Your task to perform on an android device: toggle location history Image 0: 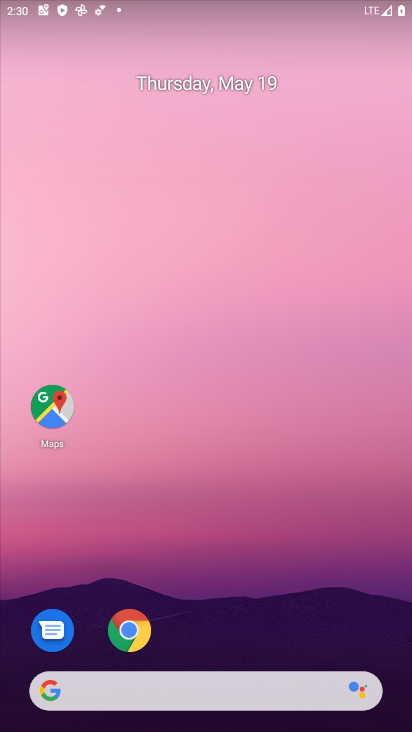
Step 0: click (362, 623)
Your task to perform on an android device: toggle location history Image 1: 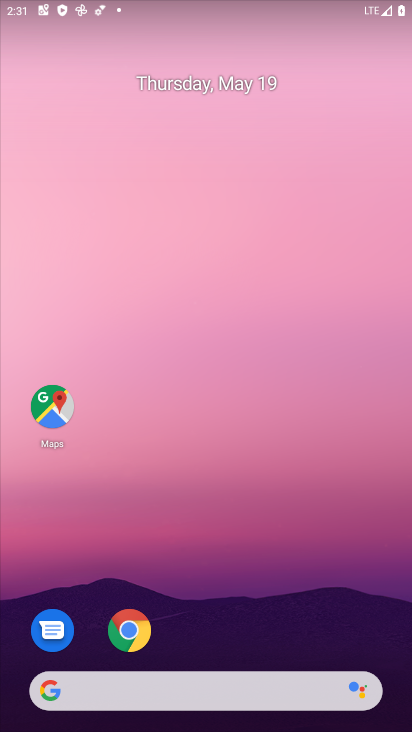
Step 1: click (48, 403)
Your task to perform on an android device: toggle location history Image 2: 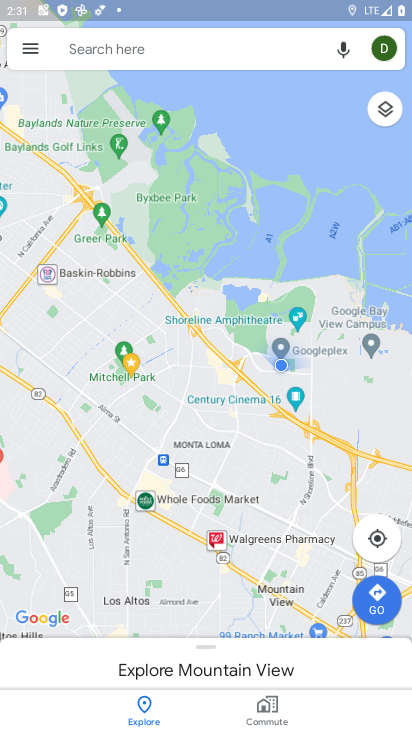
Step 2: click (32, 41)
Your task to perform on an android device: toggle location history Image 3: 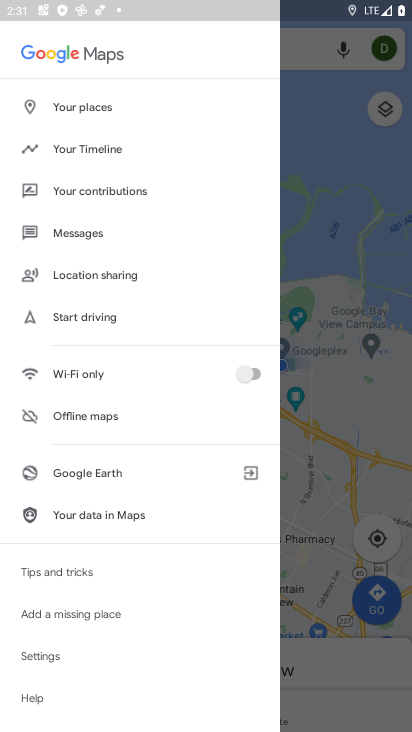
Step 3: drag from (146, 648) to (163, 304)
Your task to perform on an android device: toggle location history Image 4: 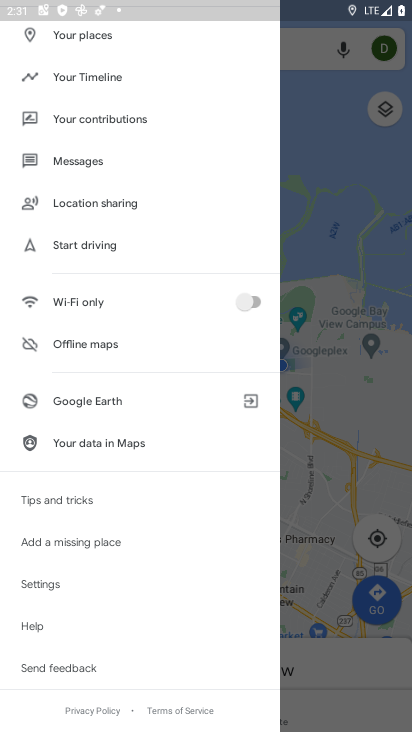
Step 4: click (40, 580)
Your task to perform on an android device: toggle location history Image 5: 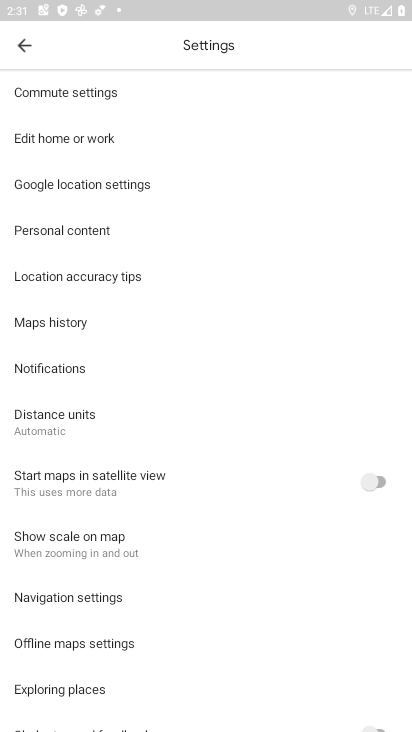
Step 5: click (66, 224)
Your task to perform on an android device: toggle location history Image 6: 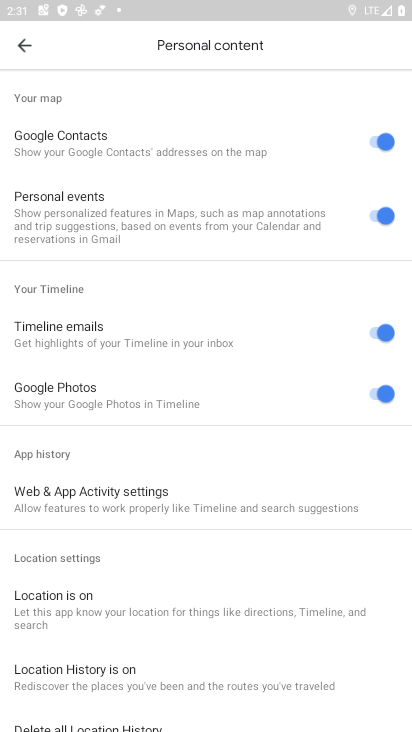
Step 6: drag from (244, 634) to (208, 338)
Your task to perform on an android device: toggle location history Image 7: 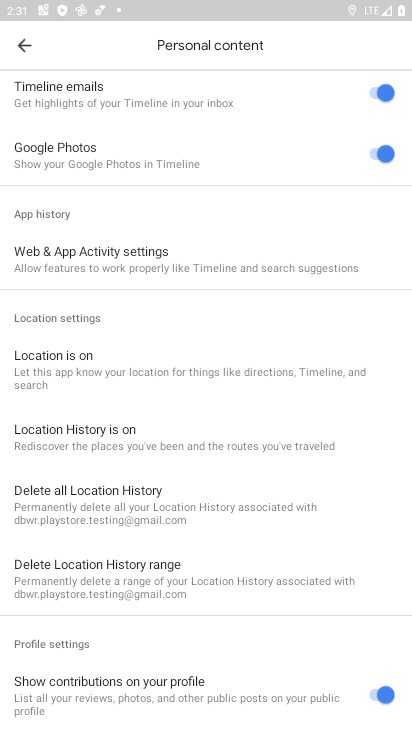
Step 7: click (80, 440)
Your task to perform on an android device: toggle location history Image 8: 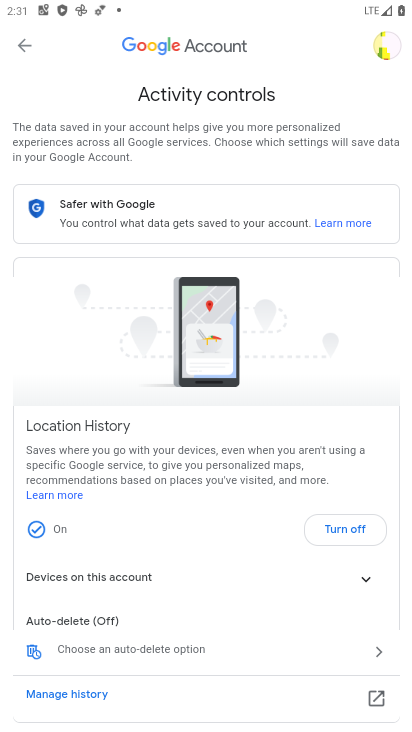
Step 8: click (348, 526)
Your task to perform on an android device: toggle location history Image 9: 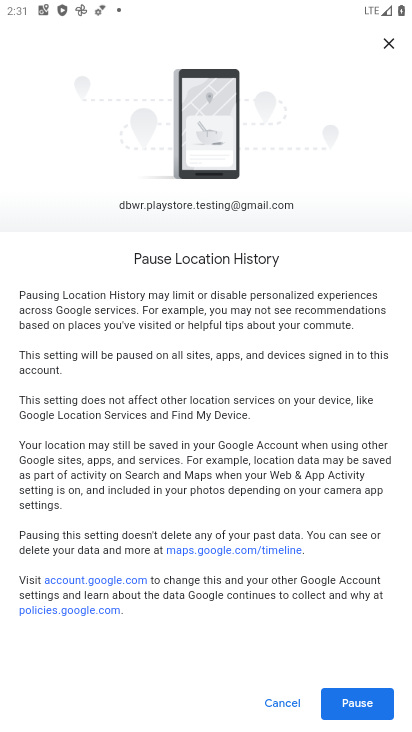
Step 9: click (353, 705)
Your task to perform on an android device: toggle location history Image 10: 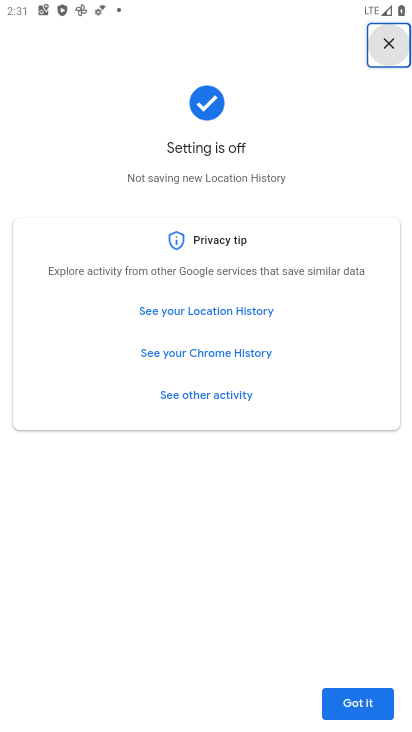
Step 10: click (357, 706)
Your task to perform on an android device: toggle location history Image 11: 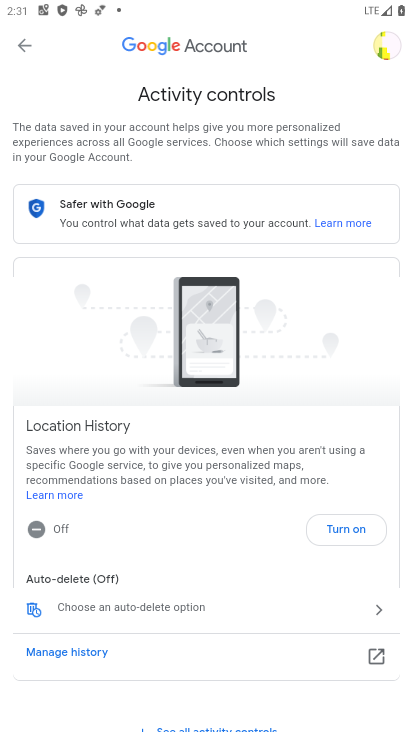
Step 11: task complete